Your task to perform on an android device: open chrome and create a bookmark for the current page Image 0: 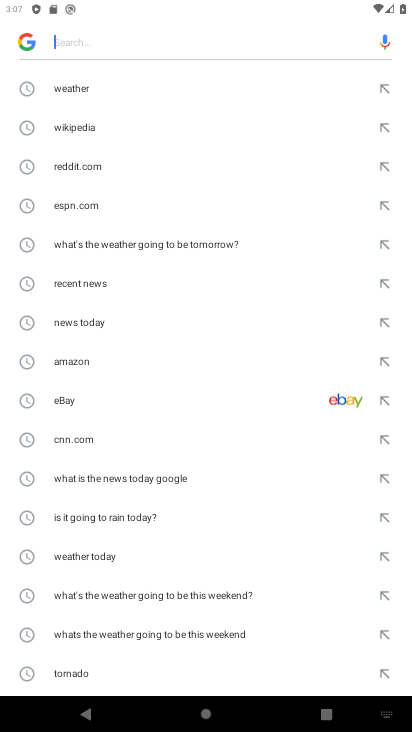
Step 0: press home button
Your task to perform on an android device: open chrome and create a bookmark for the current page Image 1: 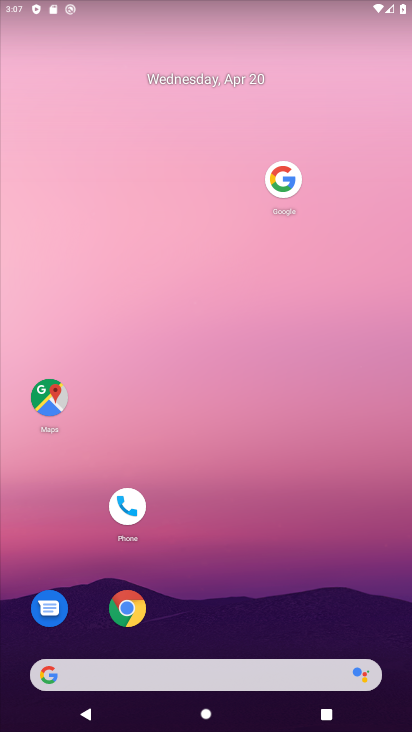
Step 1: drag from (297, 322) to (363, 1)
Your task to perform on an android device: open chrome and create a bookmark for the current page Image 2: 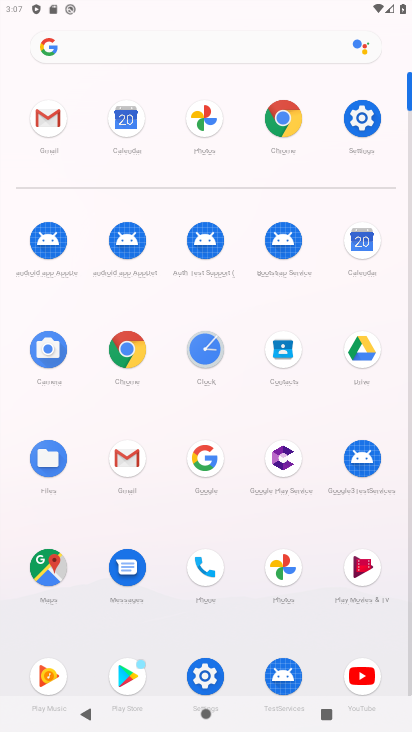
Step 2: click (117, 348)
Your task to perform on an android device: open chrome and create a bookmark for the current page Image 3: 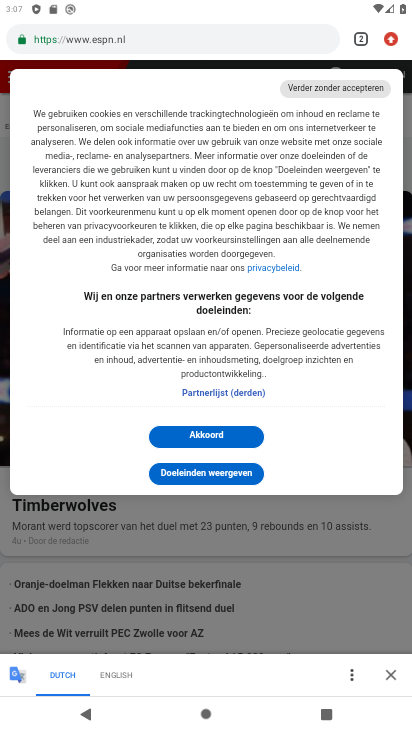
Step 3: task complete